Your task to perform on an android device: search for starred emails in the gmail app Image 0: 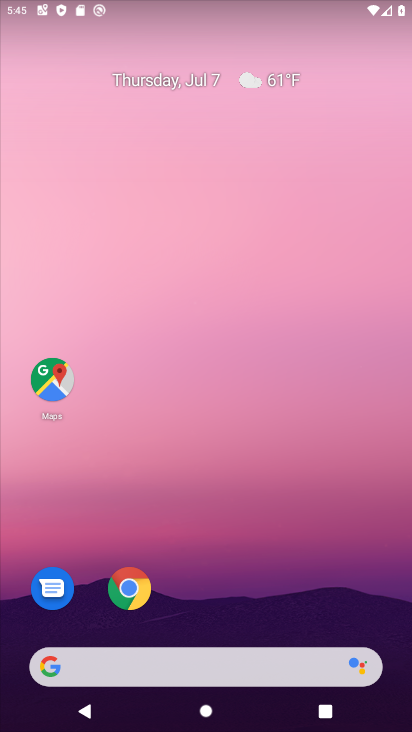
Step 0: drag from (200, 549) to (287, 38)
Your task to perform on an android device: search for starred emails in the gmail app Image 1: 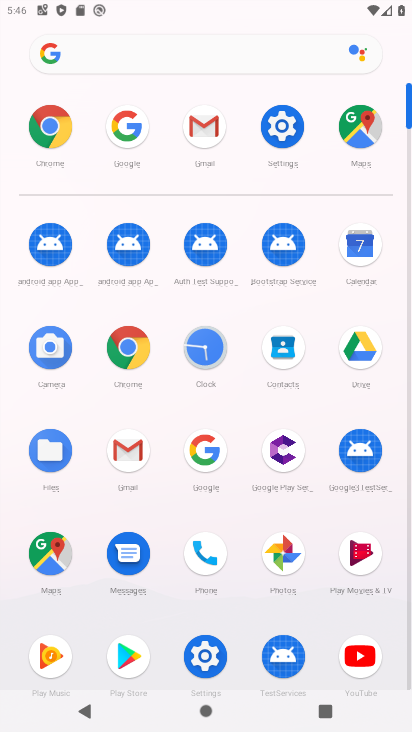
Step 1: click (200, 115)
Your task to perform on an android device: search for starred emails in the gmail app Image 2: 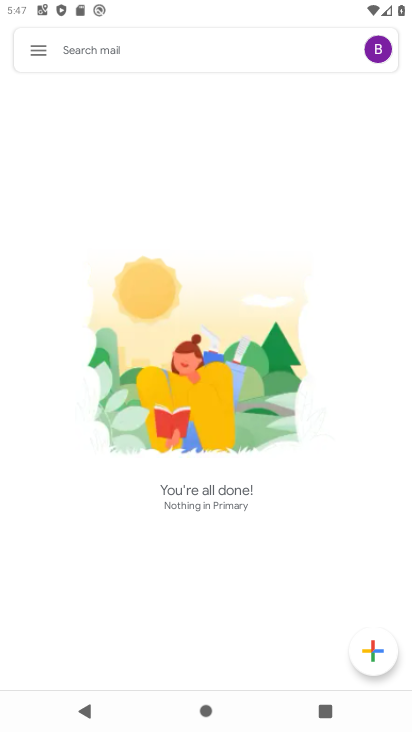
Step 2: click (35, 48)
Your task to perform on an android device: search for starred emails in the gmail app Image 3: 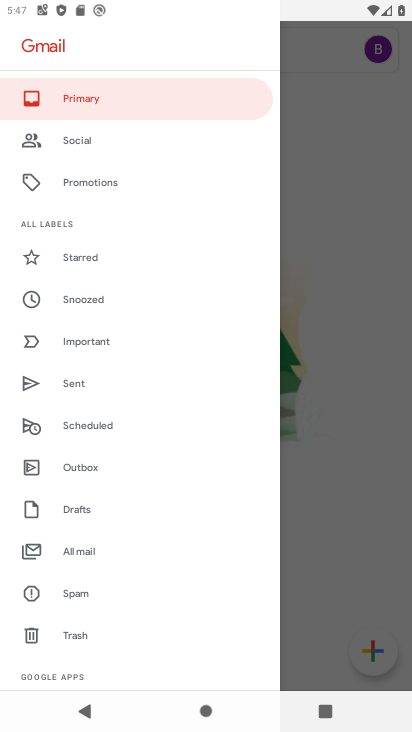
Step 3: click (86, 258)
Your task to perform on an android device: search for starred emails in the gmail app Image 4: 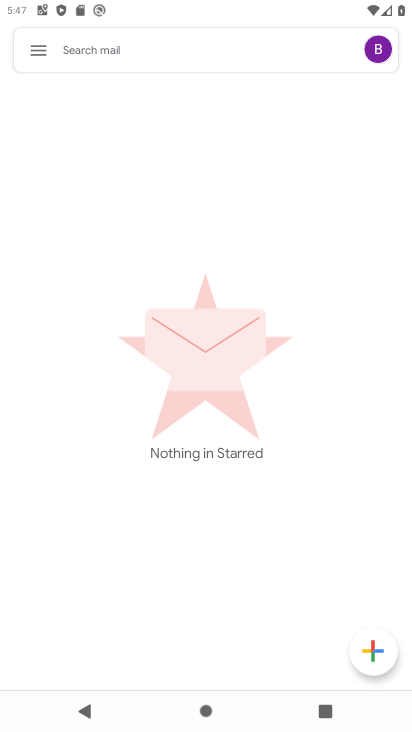
Step 4: task complete